Your task to perform on an android device: turn on wifi Image 0: 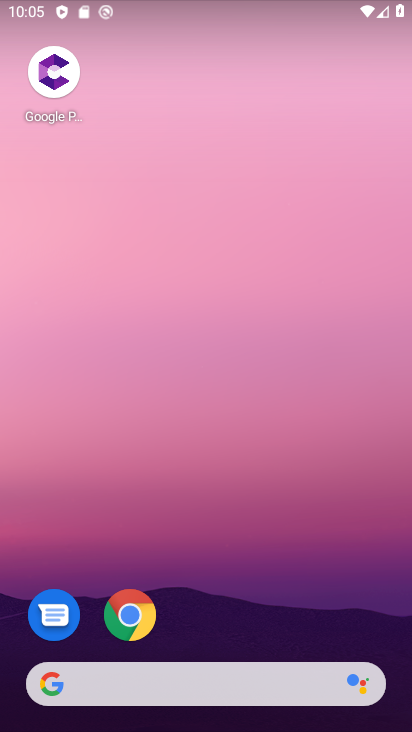
Step 0: task complete